Your task to perform on an android device: open the mobile data screen to see how much data has been used Image 0: 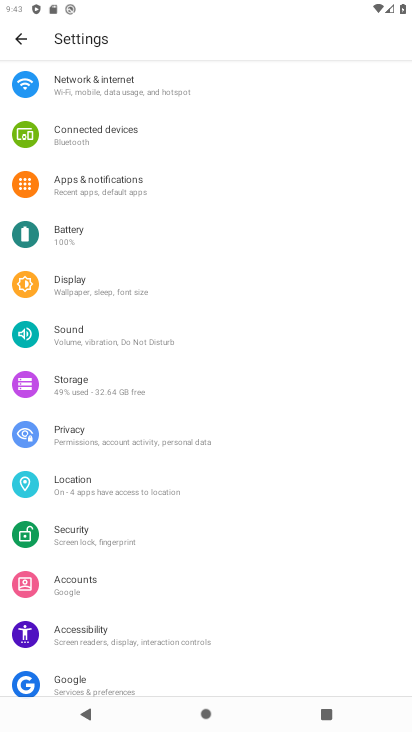
Step 0: drag from (337, 368) to (338, 114)
Your task to perform on an android device: open the mobile data screen to see how much data has been used Image 1: 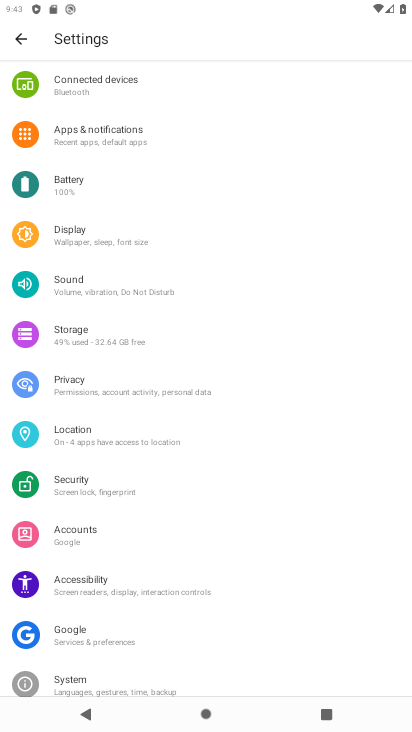
Step 1: press home button
Your task to perform on an android device: open the mobile data screen to see how much data has been used Image 2: 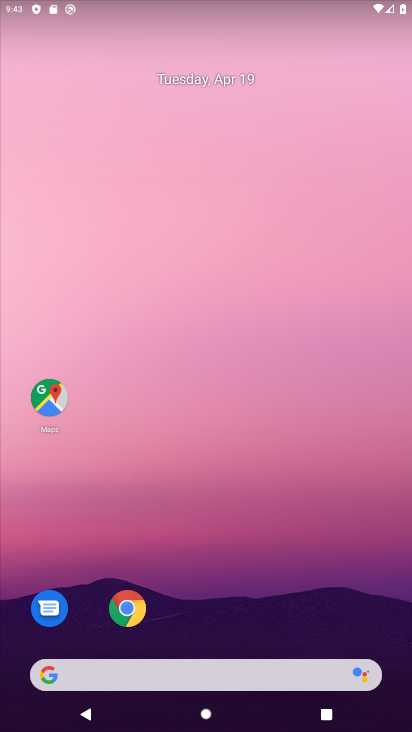
Step 2: click (118, 596)
Your task to perform on an android device: open the mobile data screen to see how much data has been used Image 3: 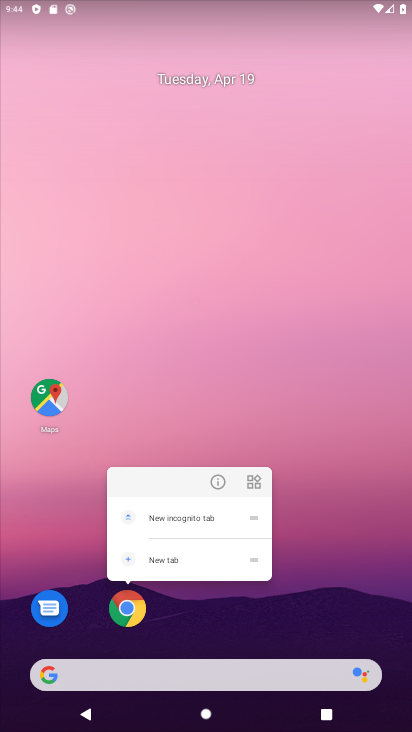
Step 3: click (355, 518)
Your task to perform on an android device: open the mobile data screen to see how much data has been used Image 4: 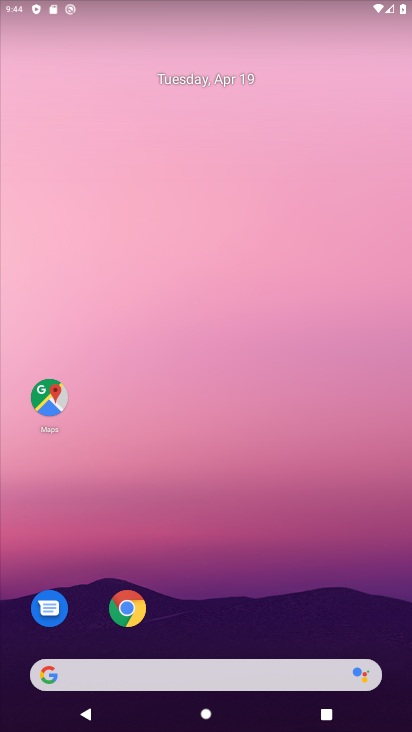
Step 4: drag from (368, 611) to (359, 204)
Your task to perform on an android device: open the mobile data screen to see how much data has been used Image 5: 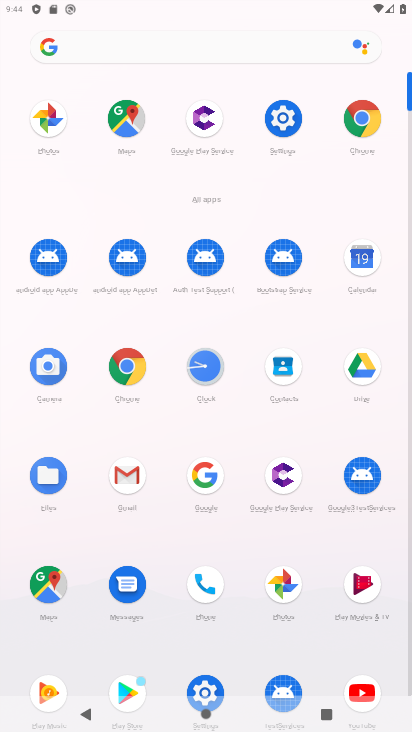
Step 5: click (272, 131)
Your task to perform on an android device: open the mobile data screen to see how much data has been used Image 6: 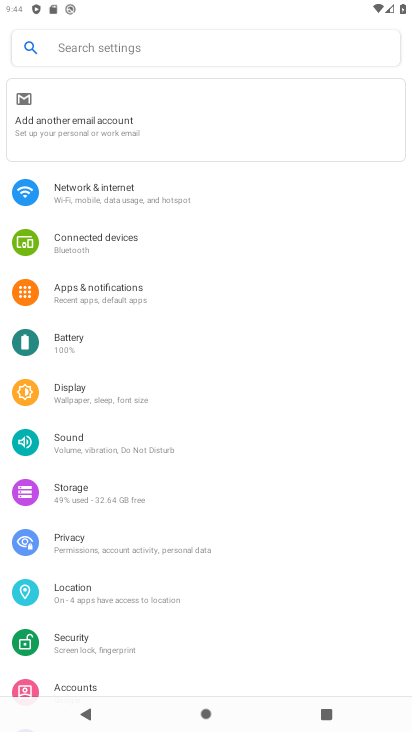
Step 6: click (97, 188)
Your task to perform on an android device: open the mobile data screen to see how much data has been used Image 7: 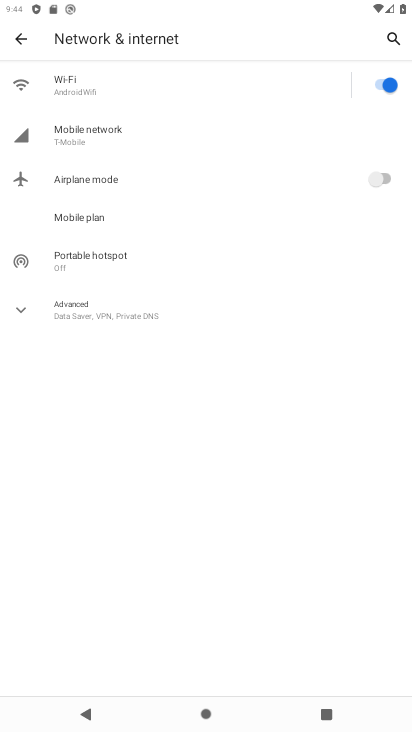
Step 7: click (91, 130)
Your task to perform on an android device: open the mobile data screen to see how much data has been used Image 8: 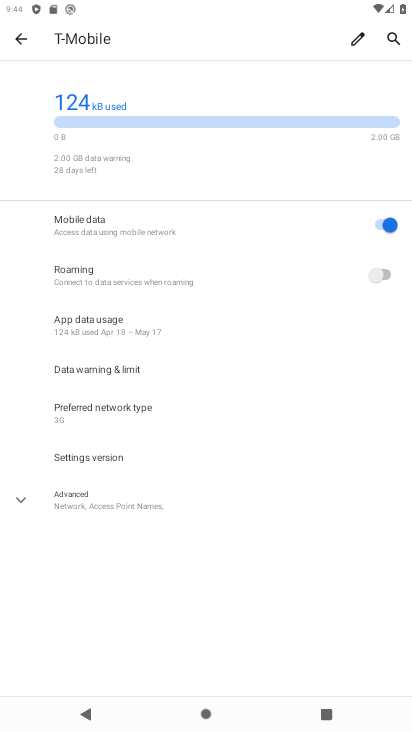
Step 8: task complete